Your task to perform on an android device: Go to eBay Image 0: 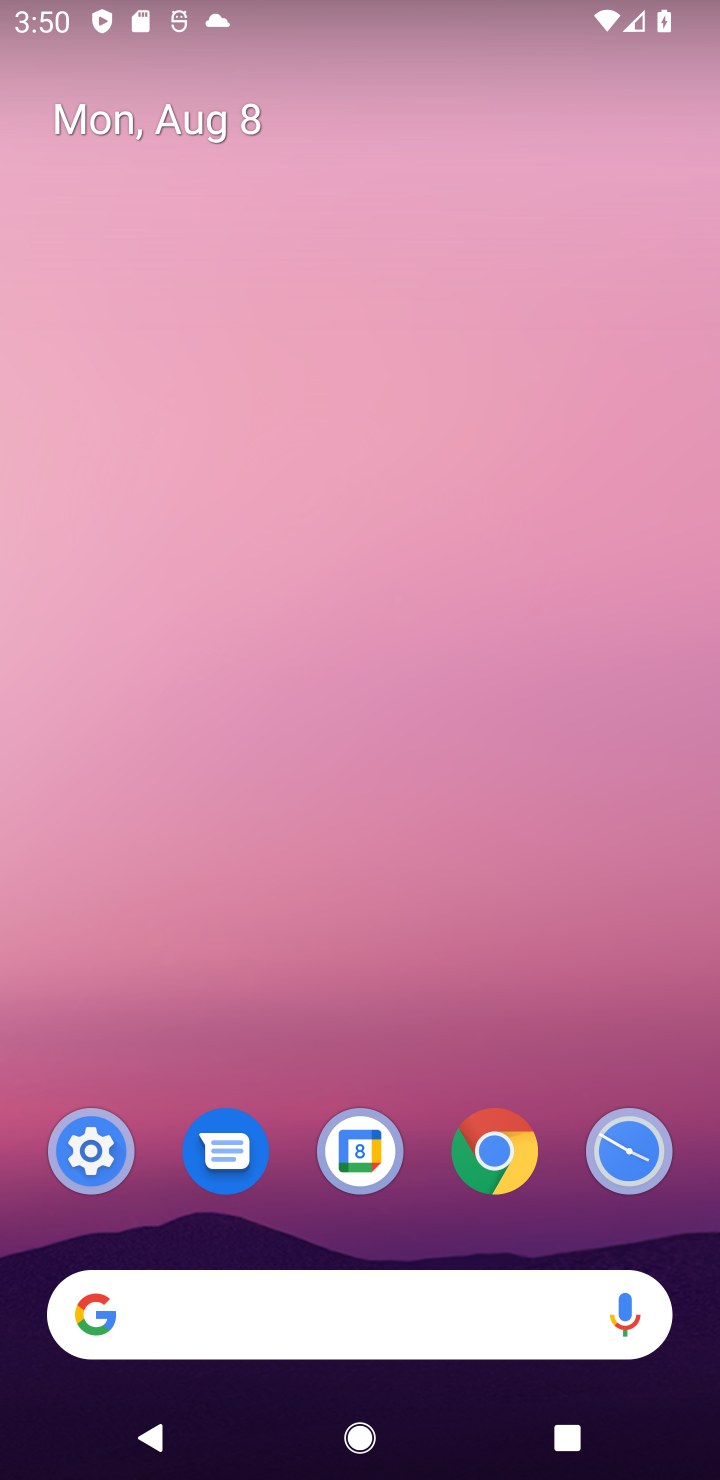
Step 0: click (486, 1152)
Your task to perform on an android device: Go to eBay Image 1: 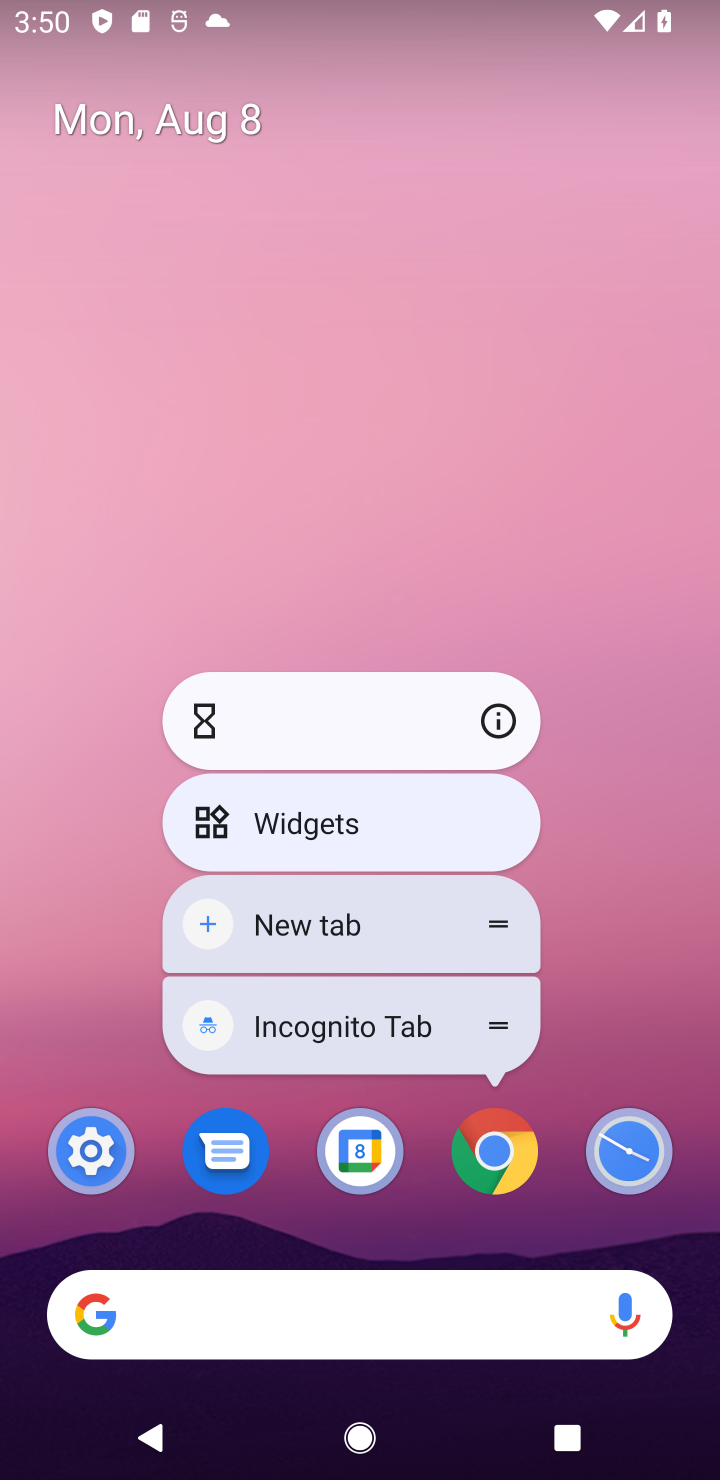
Step 1: click (486, 1152)
Your task to perform on an android device: Go to eBay Image 2: 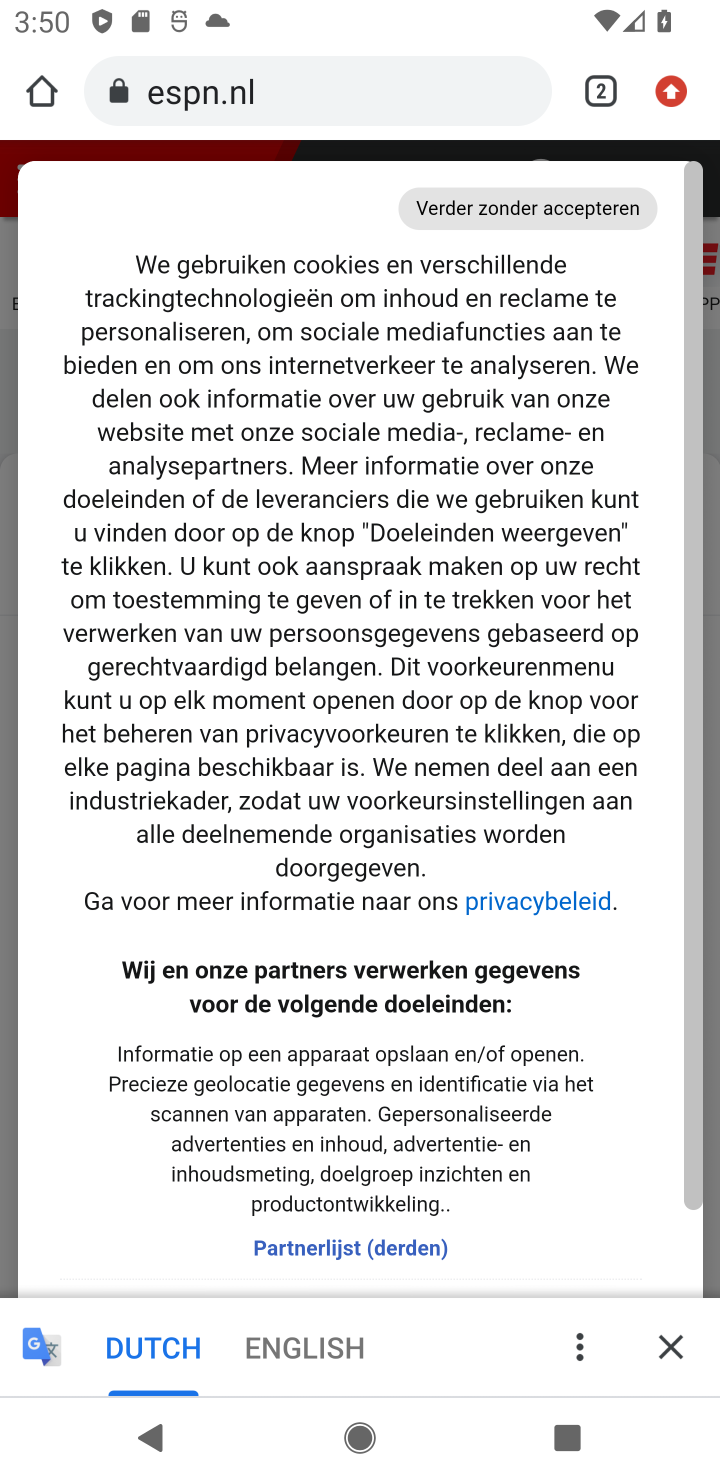
Step 2: click (584, 98)
Your task to perform on an android device: Go to eBay Image 3: 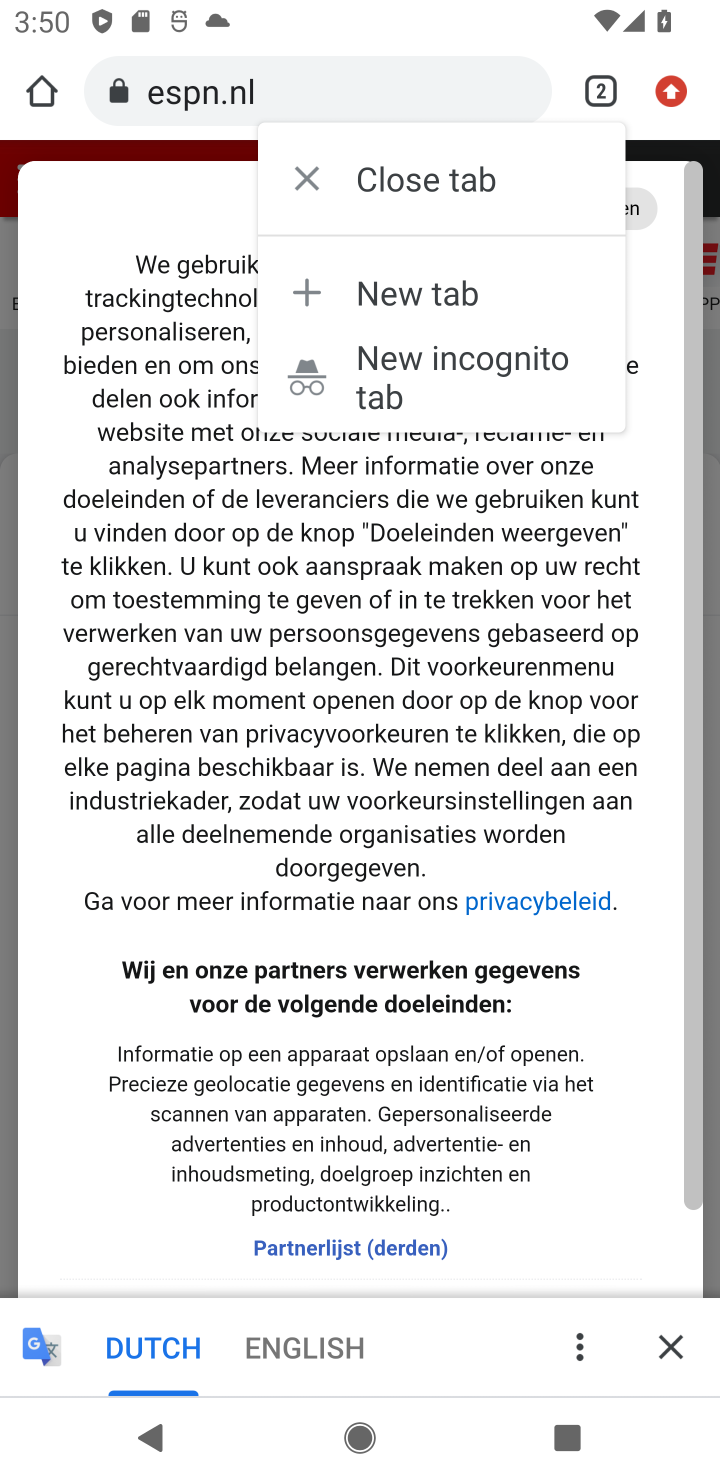
Step 3: click (591, 84)
Your task to perform on an android device: Go to eBay Image 4: 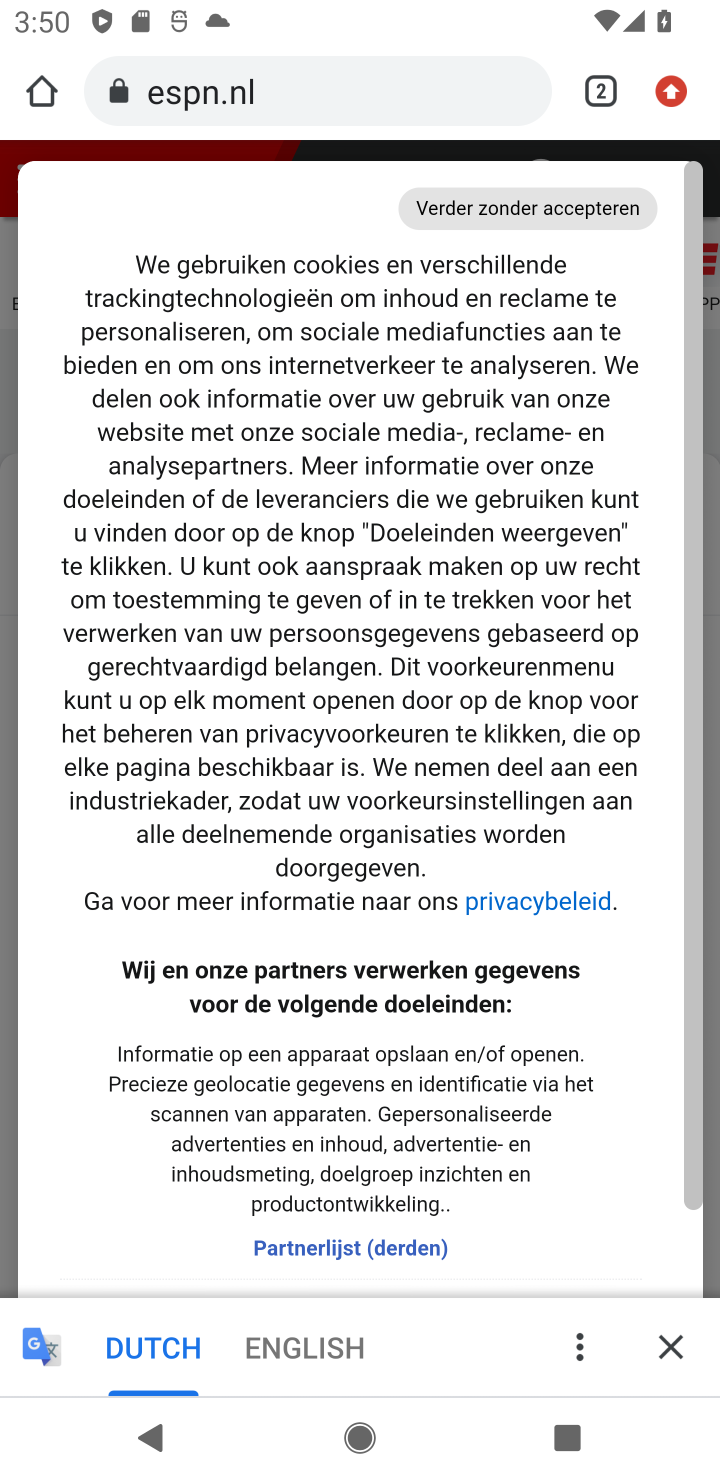
Step 4: click (591, 84)
Your task to perform on an android device: Go to eBay Image 5: 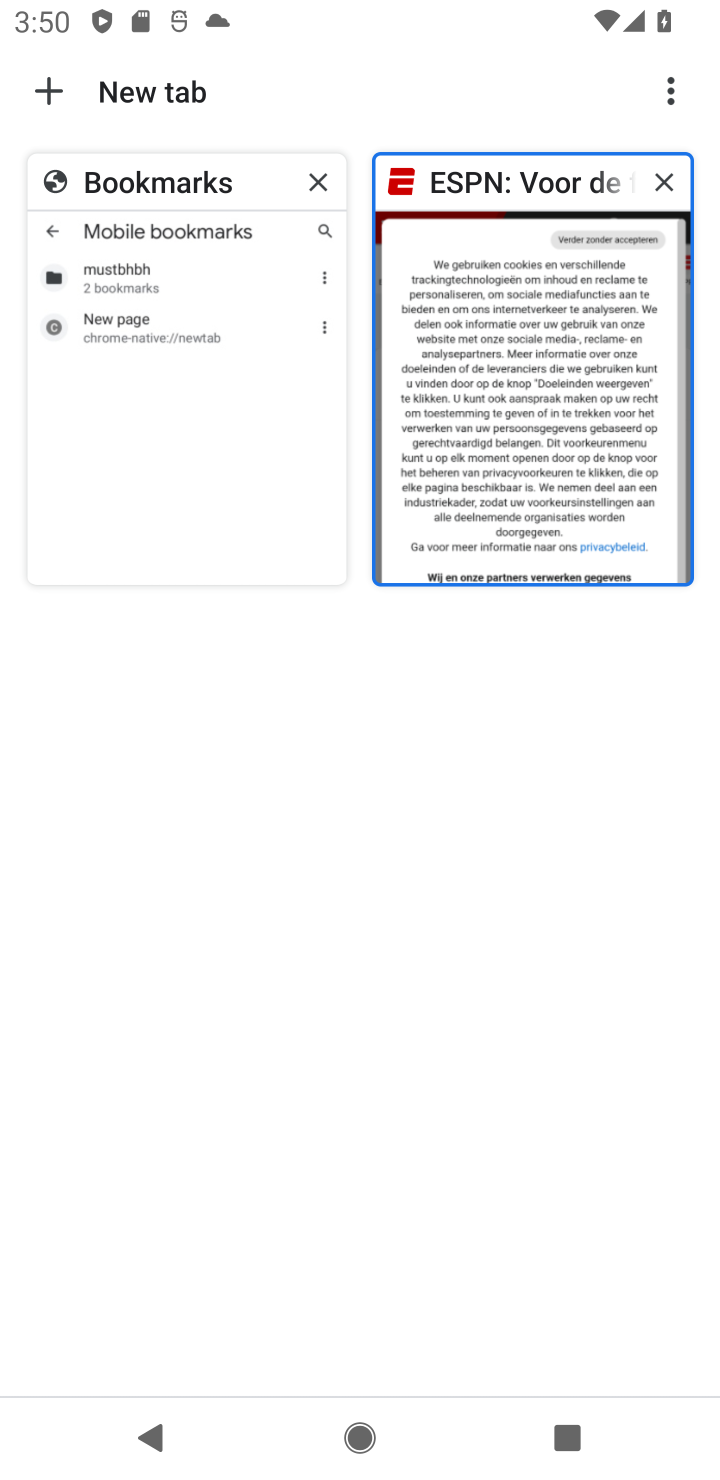
Step 5: click (52, 94)
Your task to perform on an android device: Go to eBay Image 6: 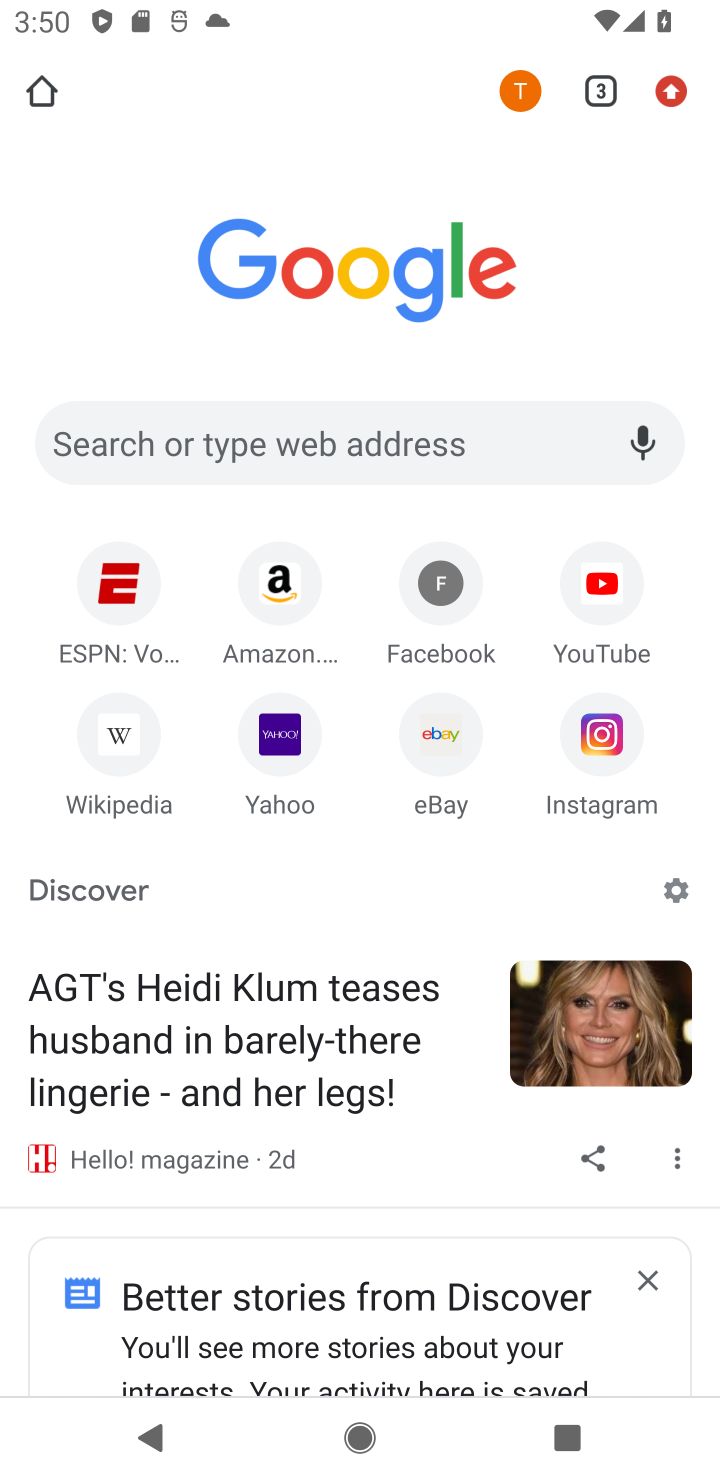
Step 6: click (414, 761)
Your task to perform on an android device: Go to eBay Image 7: 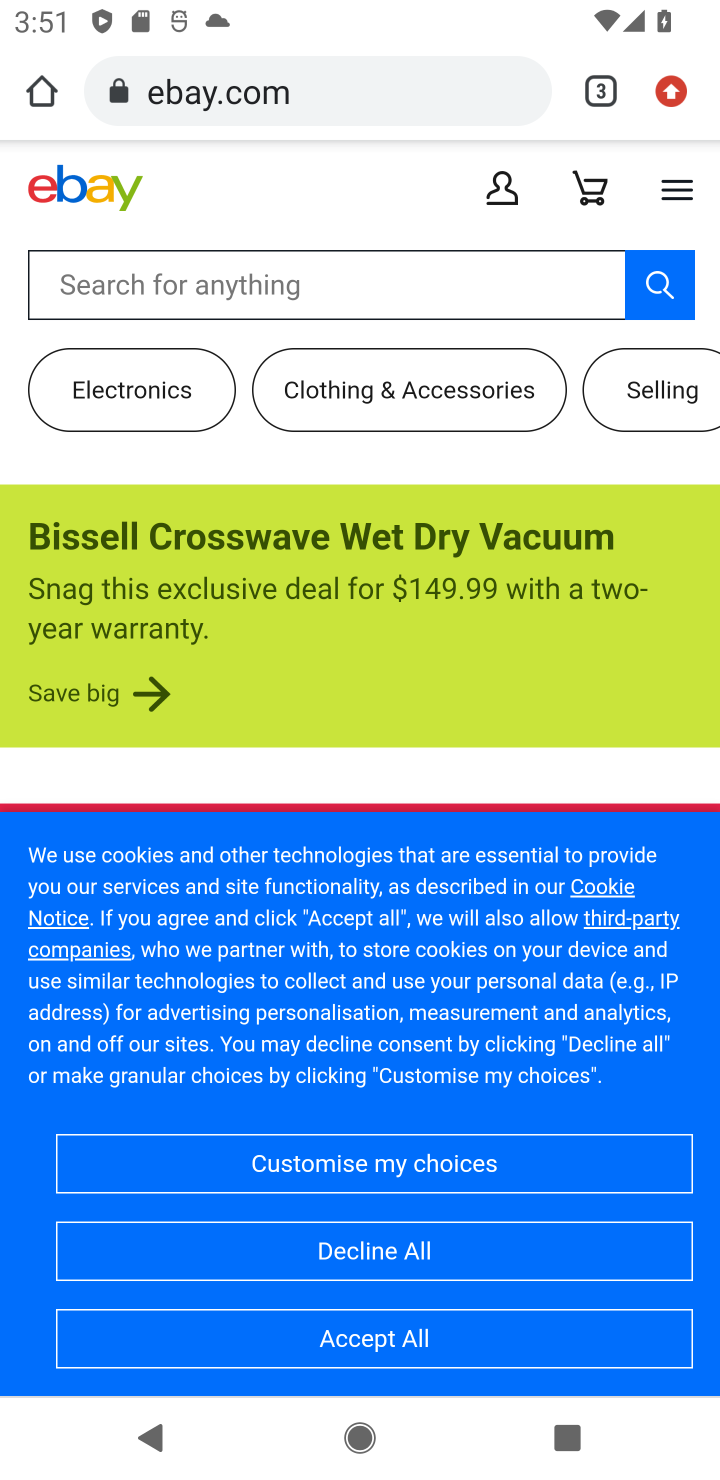
Step 7: task complete